Your task to perform on an android device: Go to Yahoo.com Image 0: 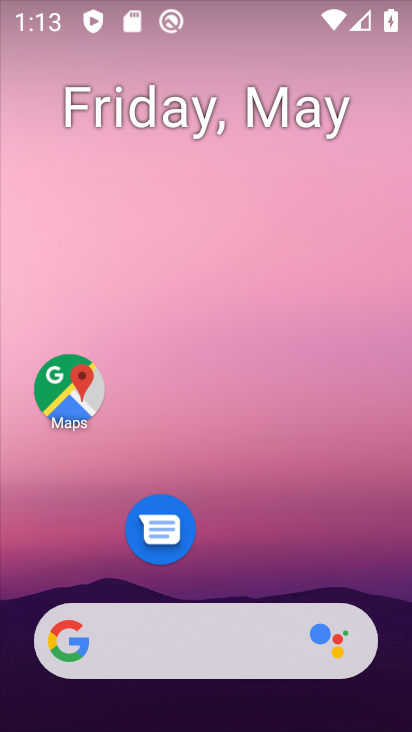
Step 0: click (245, 147)
Your task to perform on an android device: Go to Yahoo.com Image 1: 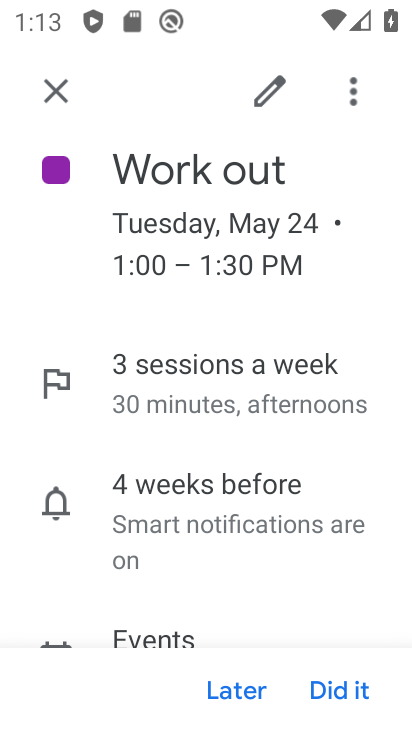
Step 1: press home button
Your task to perform on an android device: Go to Yahoo.com Image 2: 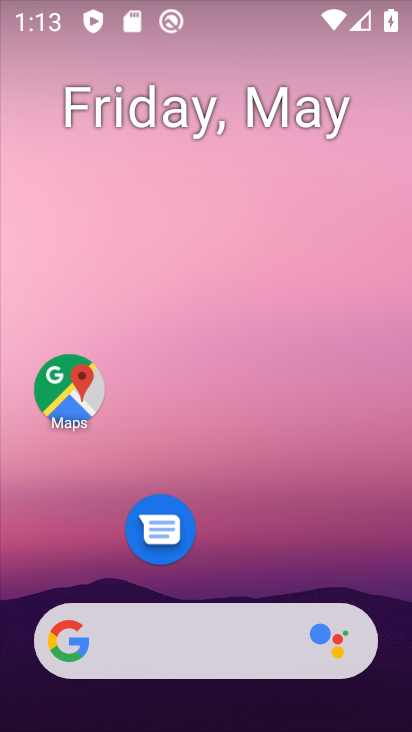
Step 2: click (199, 626)
Your task to perform on an android device: Go to Yahoo.com Image 3: 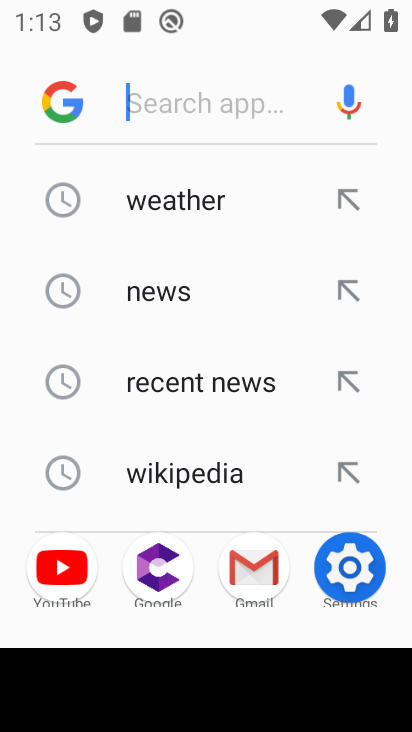
Step 3: type "yahoo.co "
Your task to perform on an android device: Go to Yahoo.com Image 4: 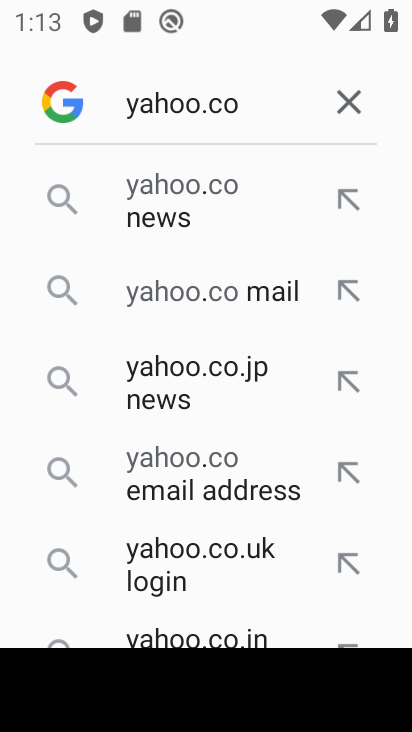
Step 4: click (342, 104)
Your task to perform on an android device: Go to Yahoo.com Image 5: 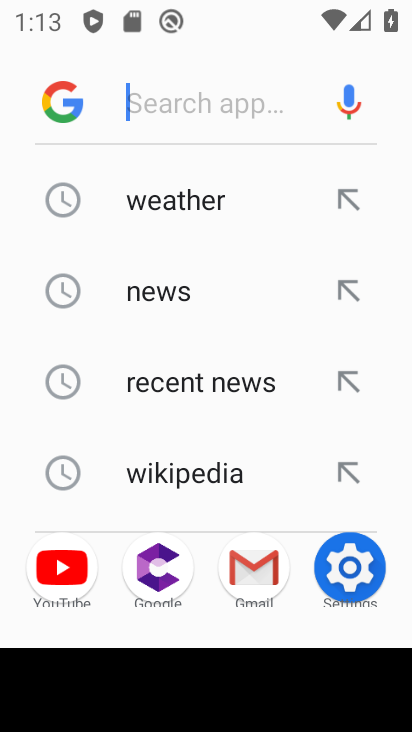
Step 5: type "yahoo.com"
Your task to perform on an android device: Go to Yahoo.com Image 6: 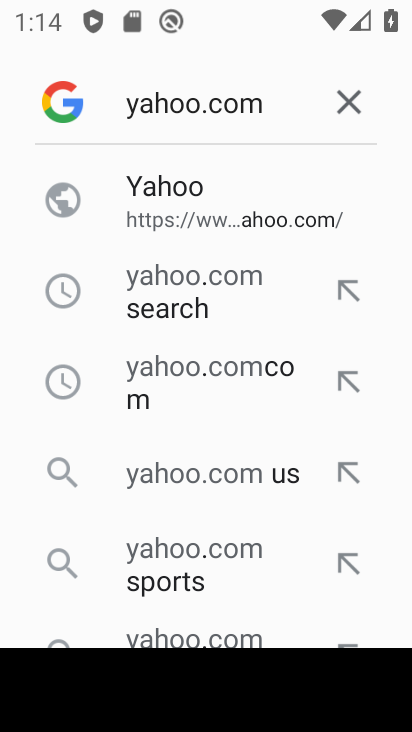
Step 6: click (167, 215)
Your task to perform on an android device: Go to Yahoo.com Image 7: 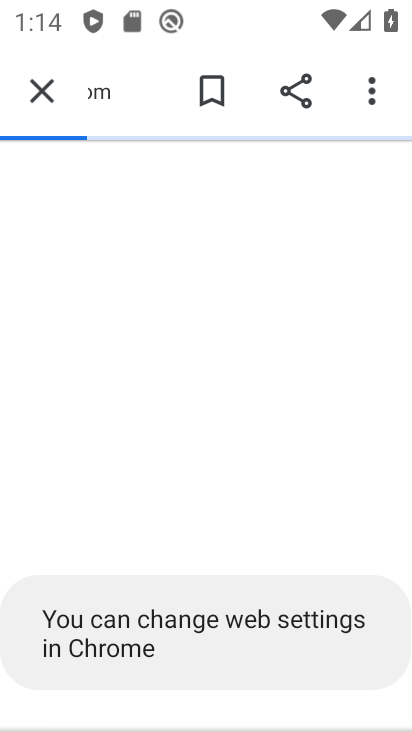
Step 7: task complete